Your task to perform on an android device: turn on wifi Image 0: 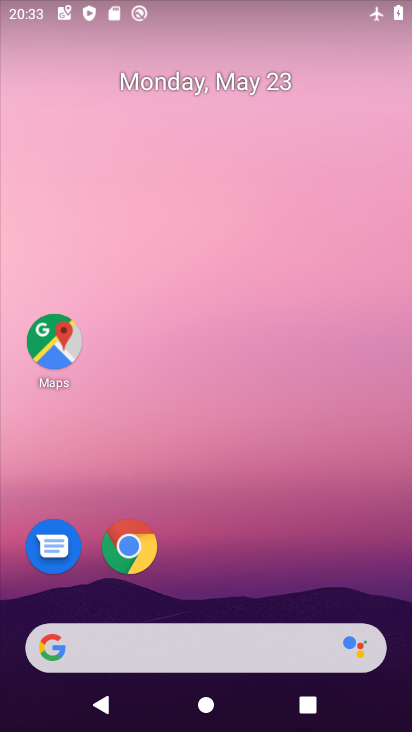
Step 0: drag from (383, 588) to (375, 217)
Your task to perform on an android device: turn on wifi Image 1: 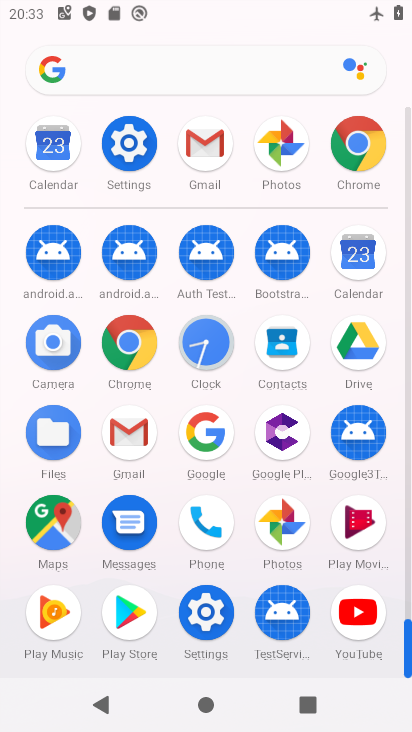
Step 1: click (206, 627)
Your task to perform on an android device: turn on wifi Image 2: 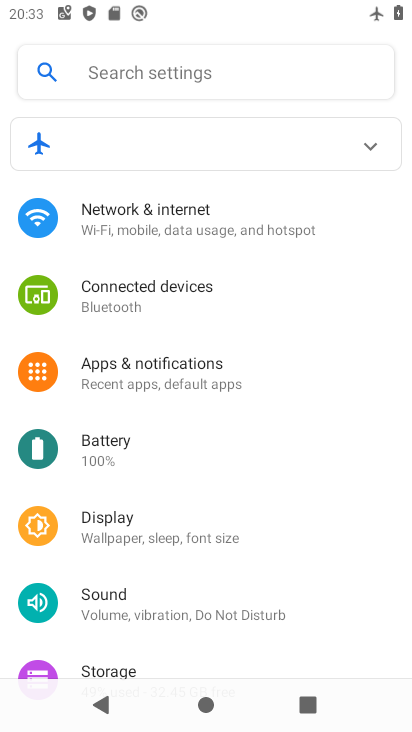
Step 2: drag from (347, 583) to (348, 467)
Your task to perform on an android device: turn on wifi Image 3: 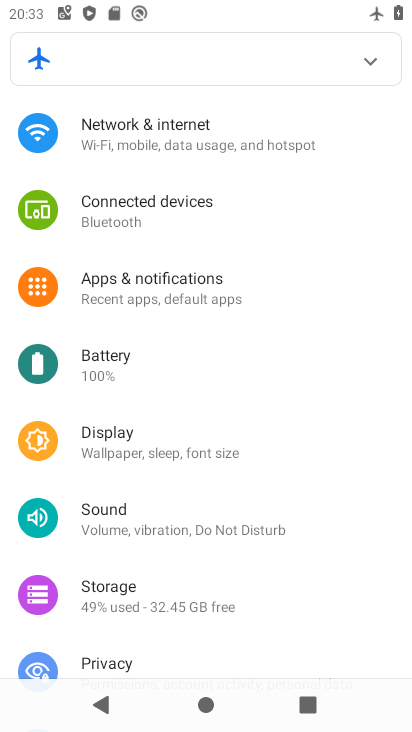
Step 3: drag from (355, 601) to (357, 472)
Your task to perform on an android device: turn on wifi Image 4: 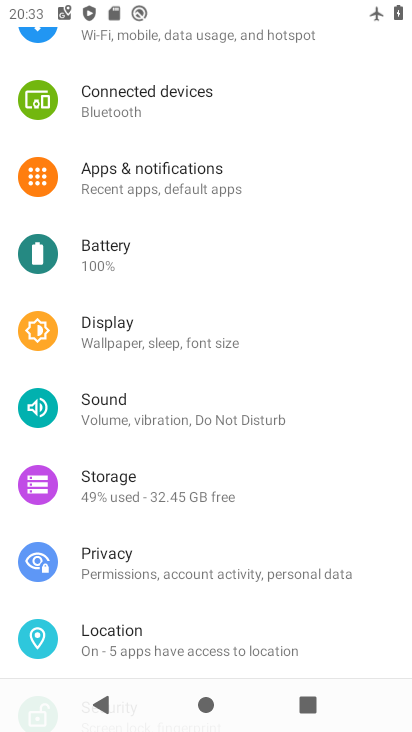
Step 4: drag from (343, 636) to (330, 501)
Your task to perform on an android device: turn on wifi Image 5: 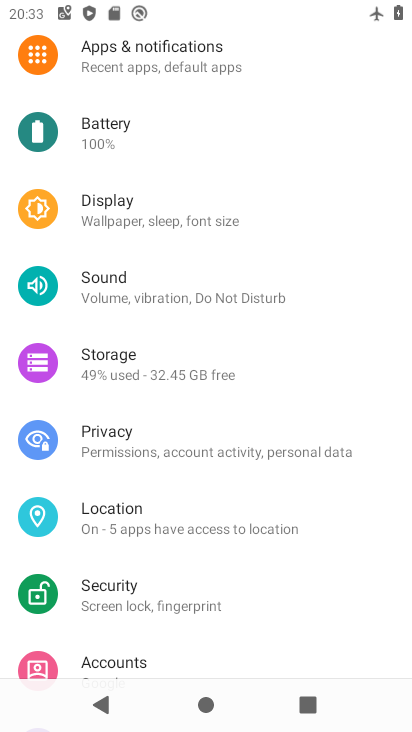
Step 5: drag from (328, 601) to (325, 454)
Your task to perform on an android device: turn on wifi Image 6: 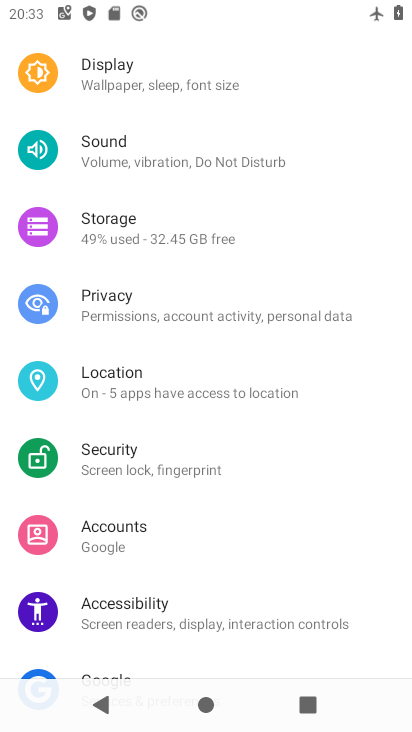
Step 6: drag from (357, 585) to (353, 450)
Your task to perform on an android device: turn on wifi Image 7: 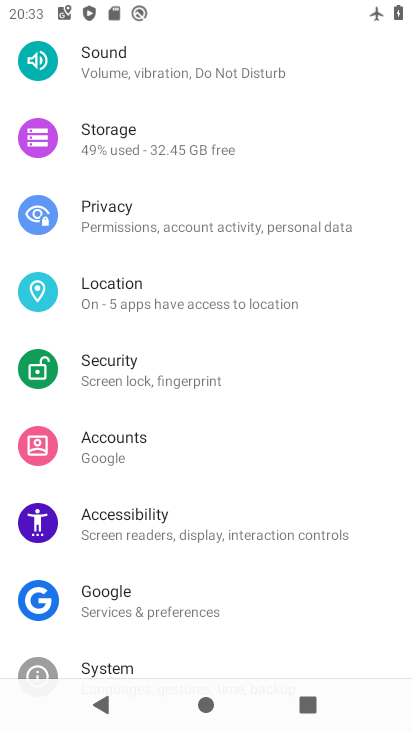
Step 7: drag from (351, 605) to (345, 471)
Your task to perform on an android device: turn on wifi Image 8: 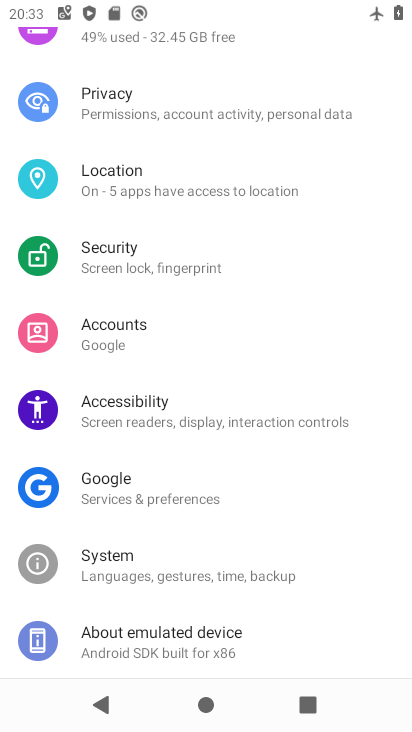
Step 8: drag from (318, 594) to (324, 462)
Your task to perform on an android device: turn on wifi Image 9: 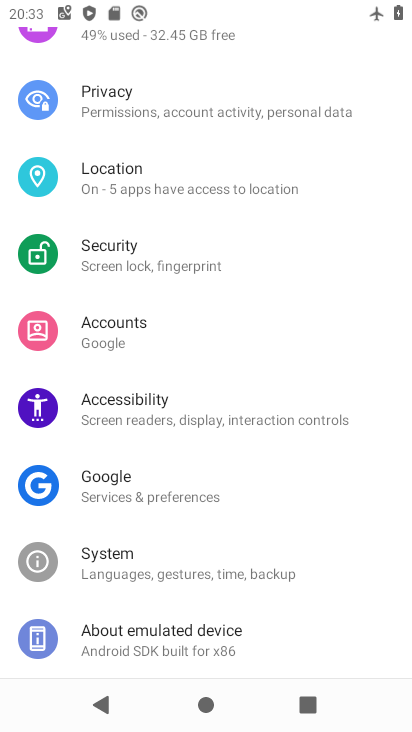
Step 9: drag from (369, 302) to (373, 431)
Your task to perform on an android device: turn on wifi Image 10: 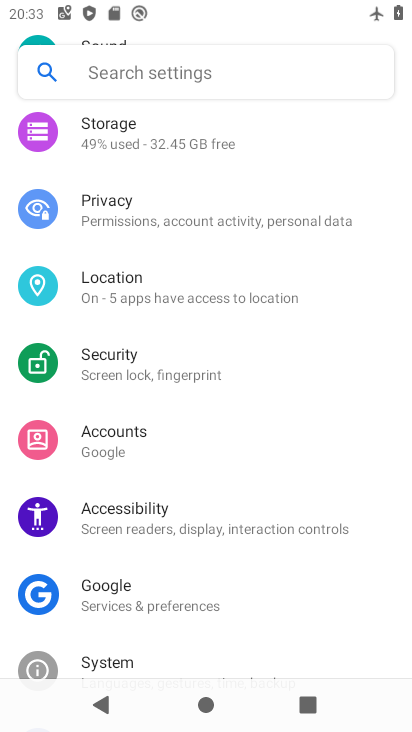
Step 10: drag from (374, 316) to (373, 438)
Your task to perform on an android device: turn on wifi Image 11: 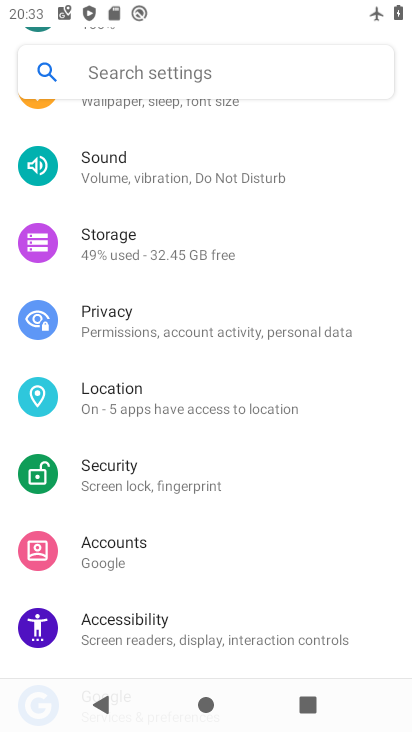
Step 11: drag from (353, 222) to (346, 408)
Your task to perform on an android device: turn on wifi Image 12: 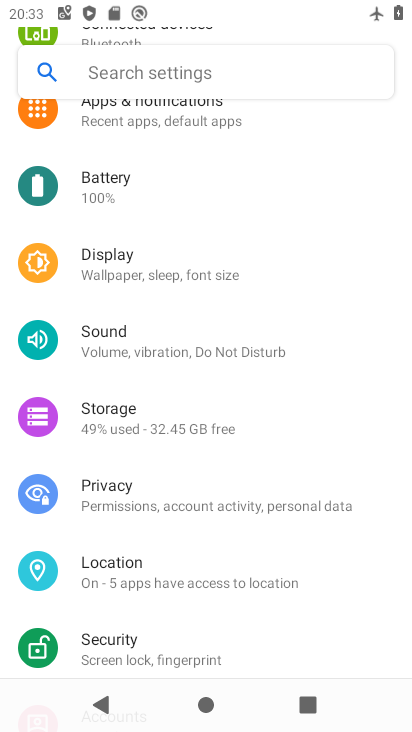
Step 12: drag from (355, 239) to (363, 383)
Your task to perform on an android device: turn on wifi Image 13: 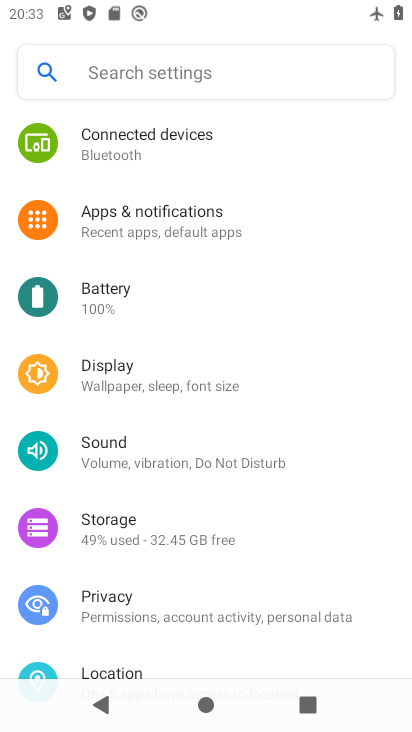
Step 13: drag from (346, 222) to (334, 366)
Your task to perform on an android device: turn on wifi Image 14: 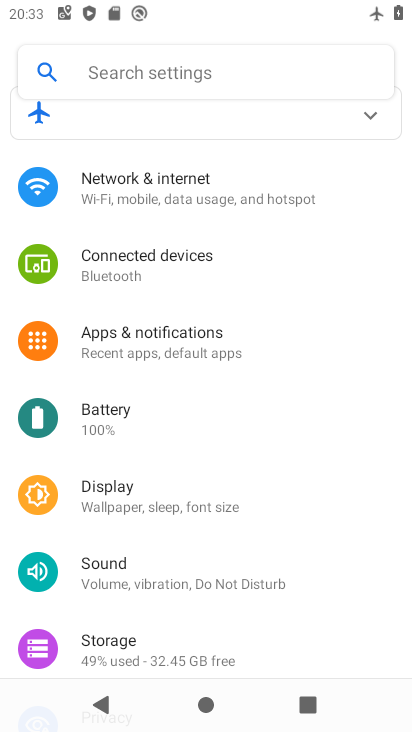
Step 14: drag from (357, 191) to (344, 353)
Your task to perform on an android device: turn on wifi Image 15: 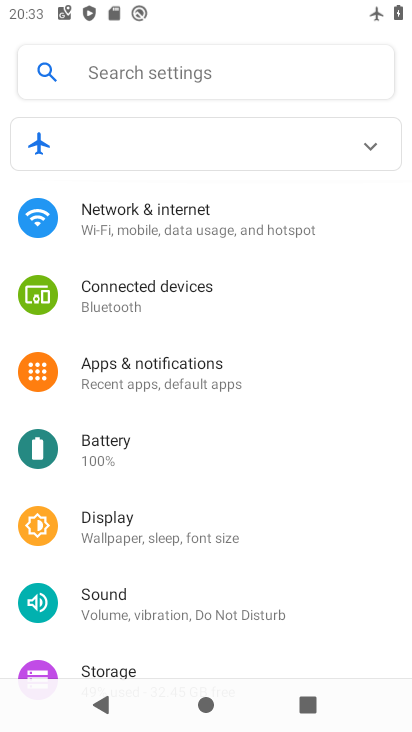
Step 15: click (274, 220)
Your task to perform on an android device: turn on wifi Image 16: 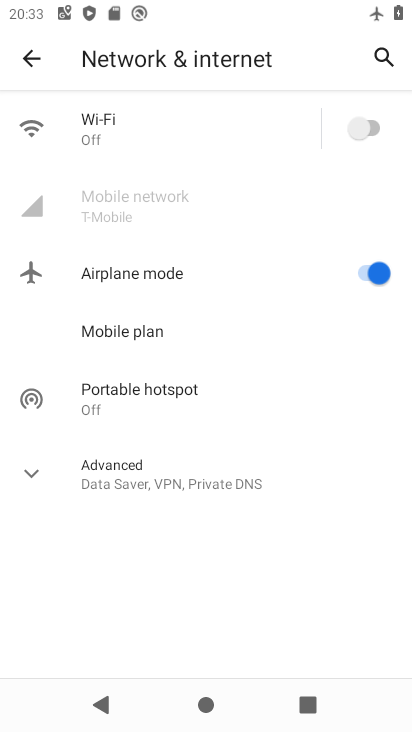
Step 16: click (354, 136)
Your task to perform on an android device: turn on wifi Image 17: 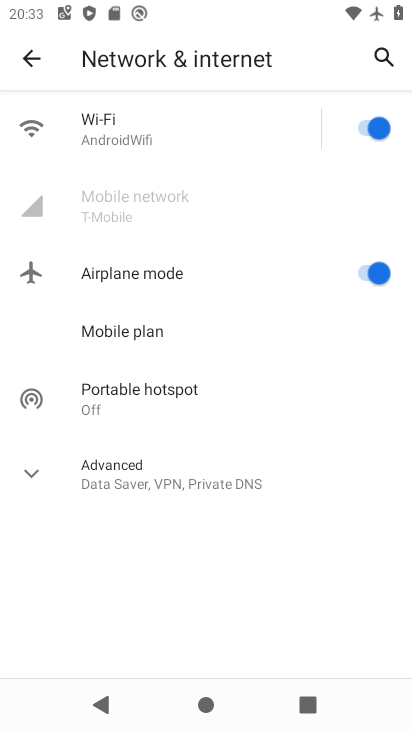
Step 17: task complete